Your task to perform on an android device: Check the weather Image 0: 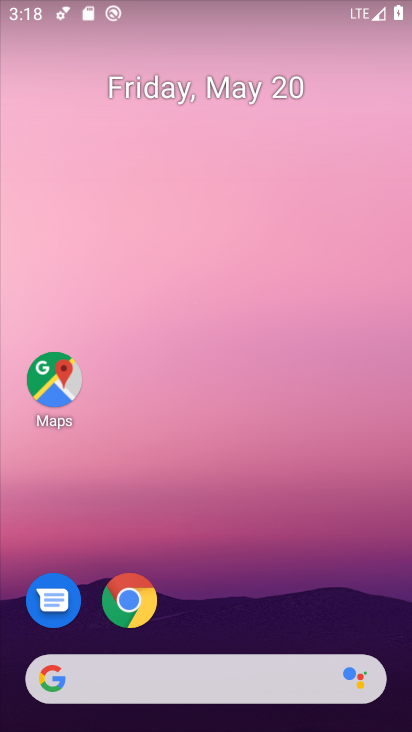
Step 0: drag from (331, 614) to (320, 170)
Your task to perform on an android device: Check the weather Image 1: 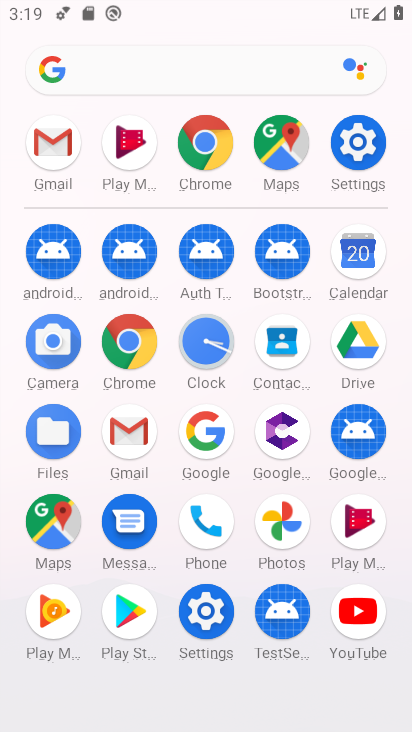
Step 1: click (225, 80)
Your task to perform on an android device: Check the weather Image 2: 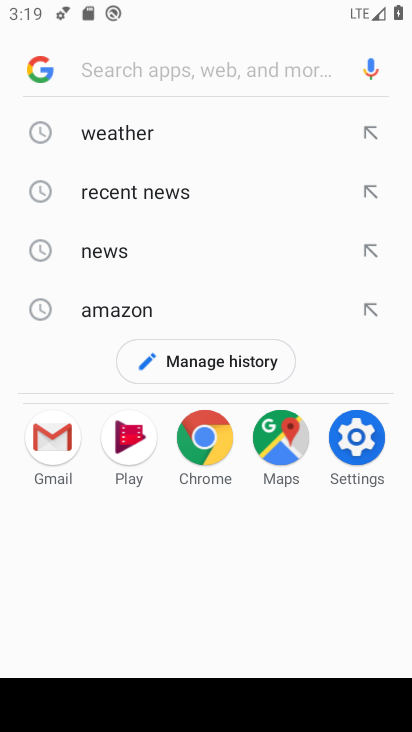
Step 2: click (140, 134)
Your task to perform on an android device: Check the weather Image 3: 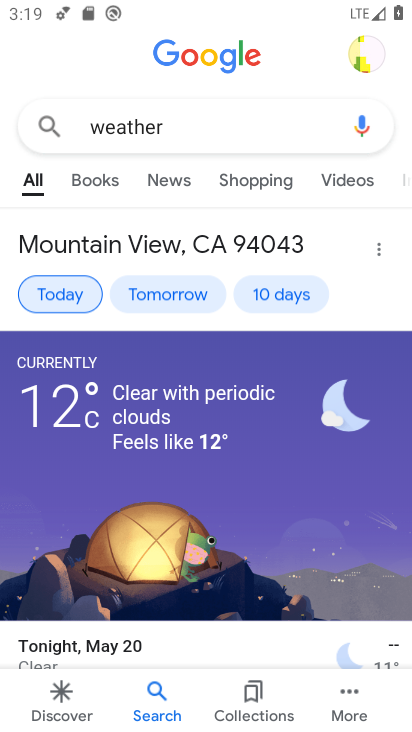
Step 3: task complete